Your task to perform on an android device: turn on sleep mode Image 0: 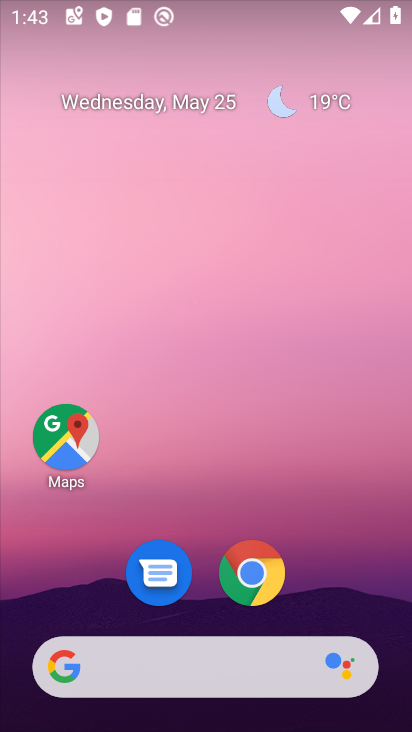
Step 0: drag from (390, 610) to (294, 29)
Your task to perform on an android device: turn on sleep mode Image 1: 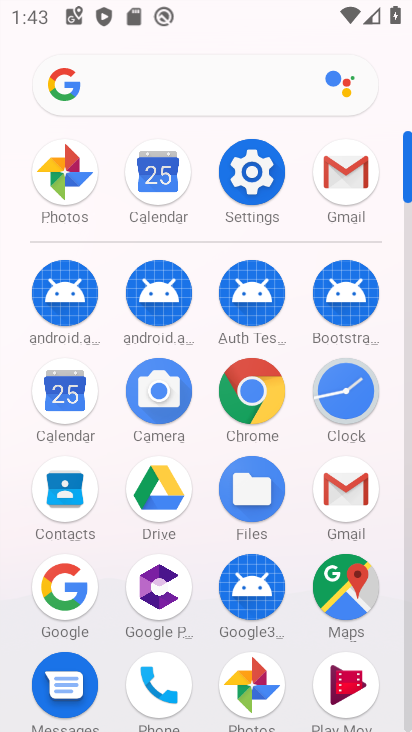
Step 1: click (408, 690)
Your task to perform on an android device: turn on sleep mode Image 2: 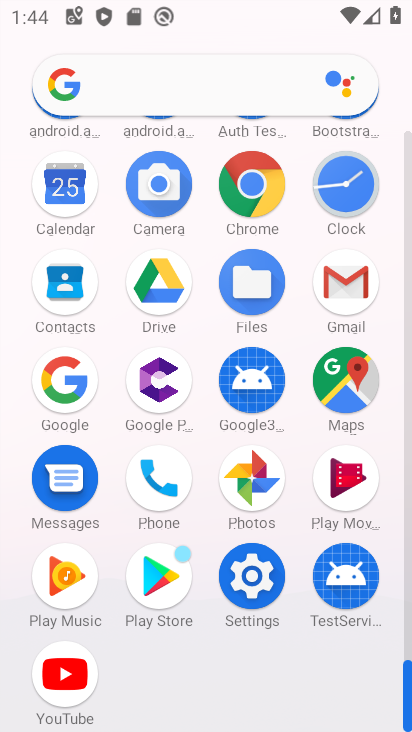
Step 2: click (253, 577)
Your task to perform on an android device: turn on sleep mode Image 3: 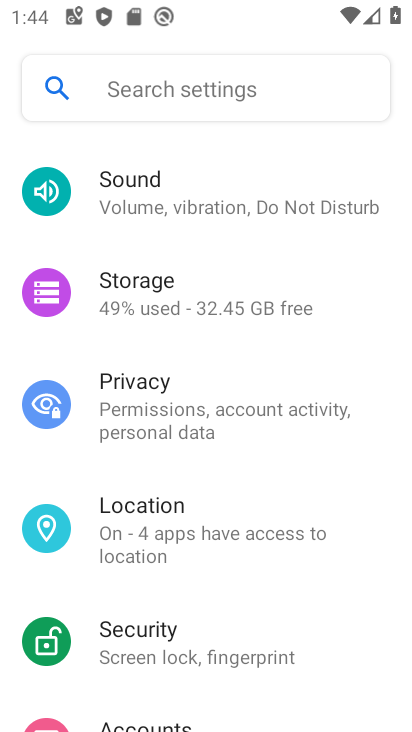
Step 3: drag from (330, 332) to (295, 719)
Your task to perform on an android device: turn on sleep mode Image 4: 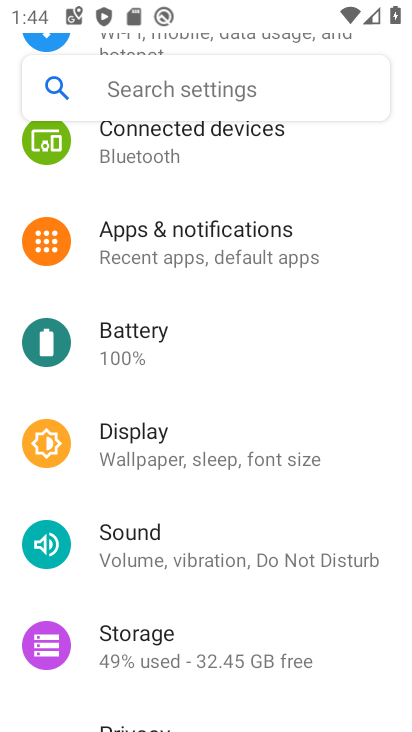
Step 4: click (142, 453)
Your task to perform on an android device: turn on sleep mode Image 5: 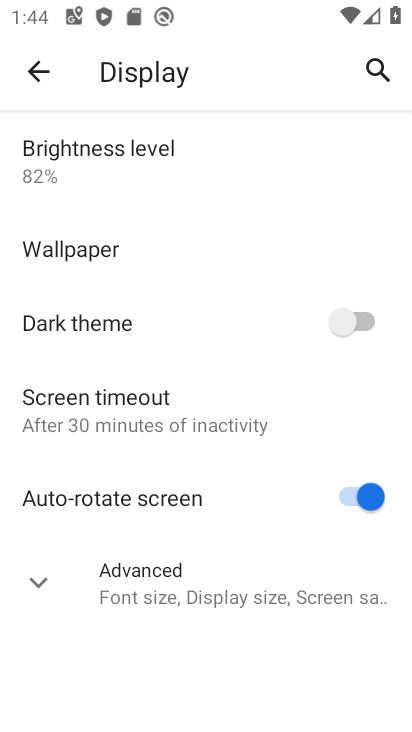
Step 5: click (38, 584)
Your task to perform on an android device: turn on sleep mode Image 6: 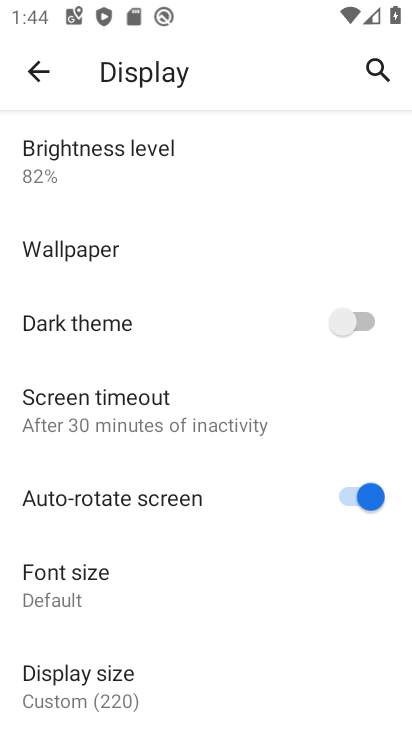
Step 6: task complete